Your task to perform on an android device: Go to Yahoo.com Image 0: 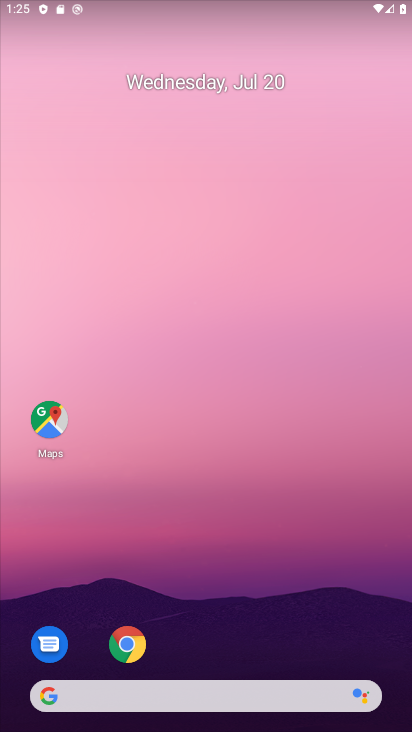
Step 0: click (127, 663)
Your task to perform on an android device: Go to Yahoo.com Image 1: 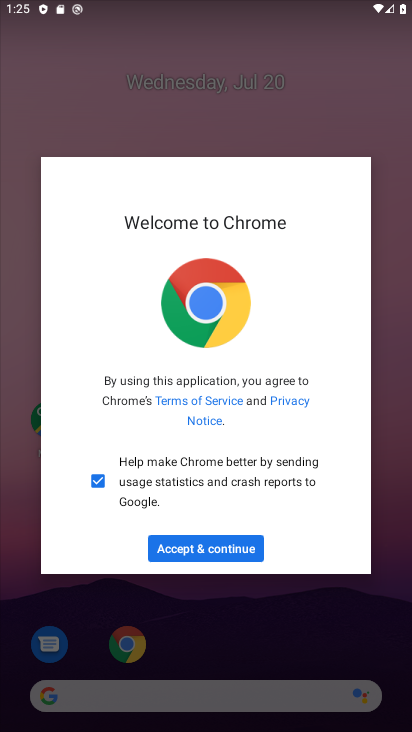
Step 1: click (255, 544)
Your task to perform on an android device: Go to Yahoo.com Image 2: 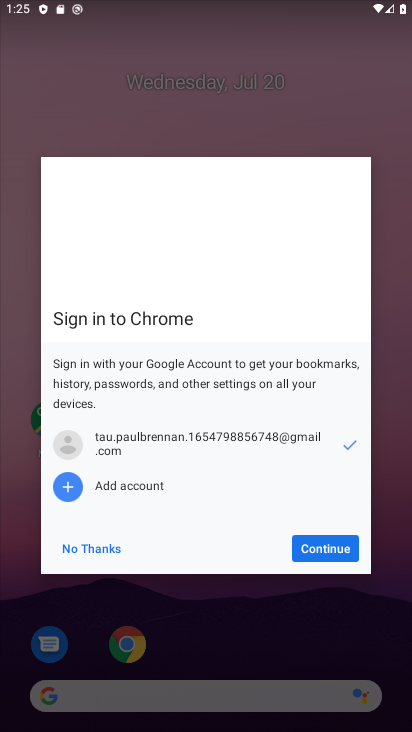
Step 2: click (307, 543)
Your task to perform on an android device: Go to Yahoo.com Image 3: 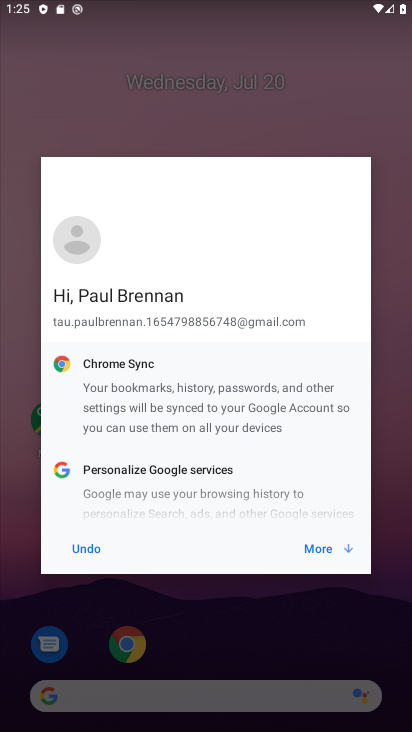
Step 3: click (311, 543)
Your task to perform on an android device: Go to Yahoo.com Image 4: 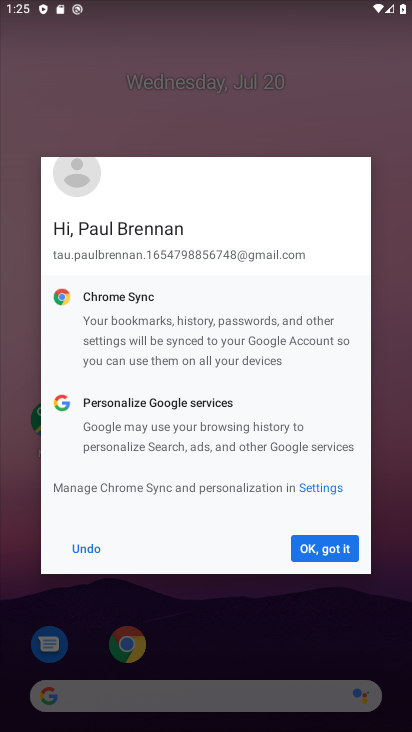
Step 4: click (315, 542)
Your task to perform on an android device: Go to Yahoo.com Image 5: 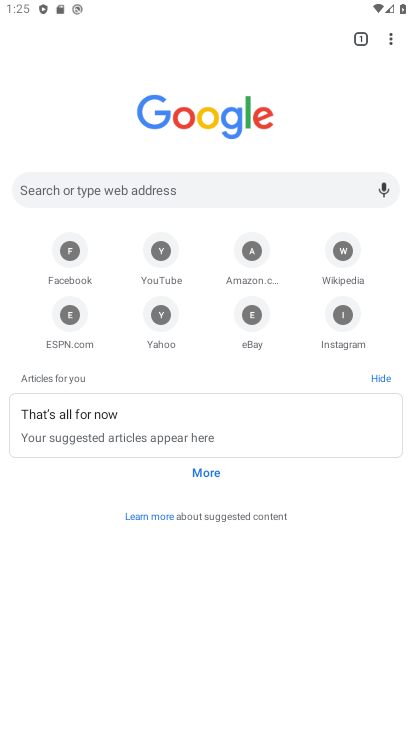
Step 5: click (163, 326)
Your task to perform on an android device: Go to Yahoo.com Image 6: 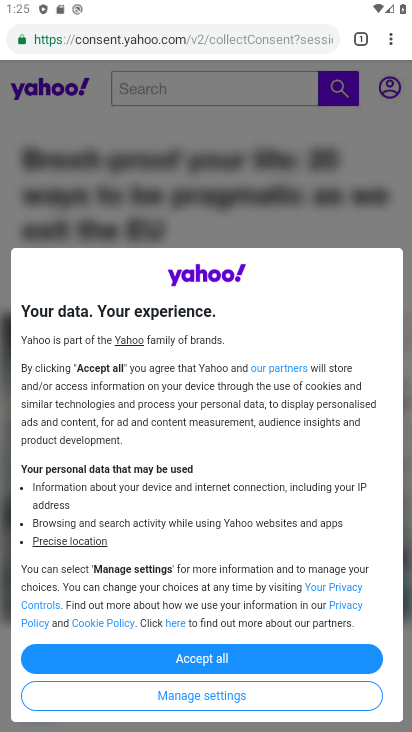
Step 6: click (213, 654)
Your task to perform on an android device: Go to Yahoo.com Image 7: 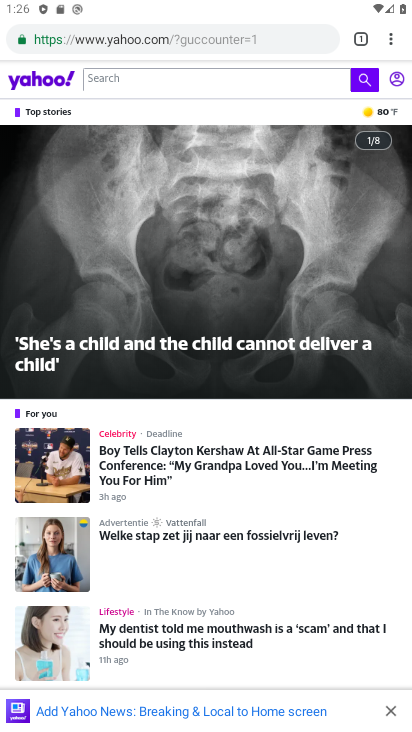
Step 7: task complete